Your task to perform on an android device: toggle javascript in the chrome app Image 0: 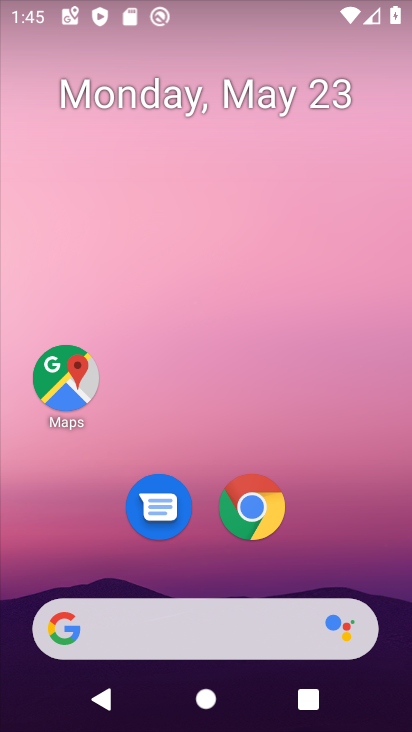
Step 0: click (248, 503)
Your task to perform on an android device: toggle javascript in the chrome app Image 1: 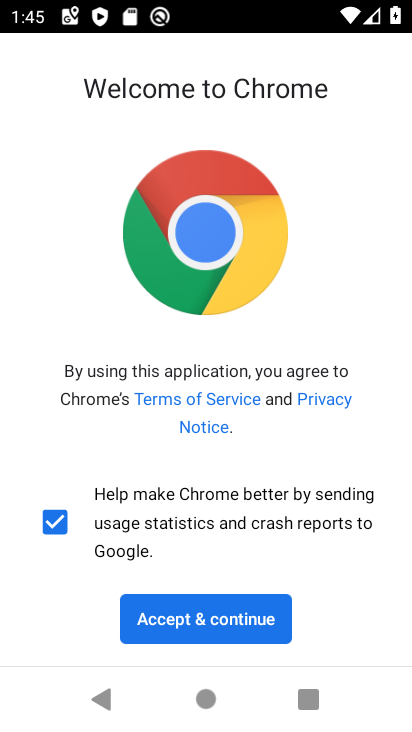
Step 1: click (193, 619)
Your task to perform on an android device: toggle javascript in the chrome app Image 2: 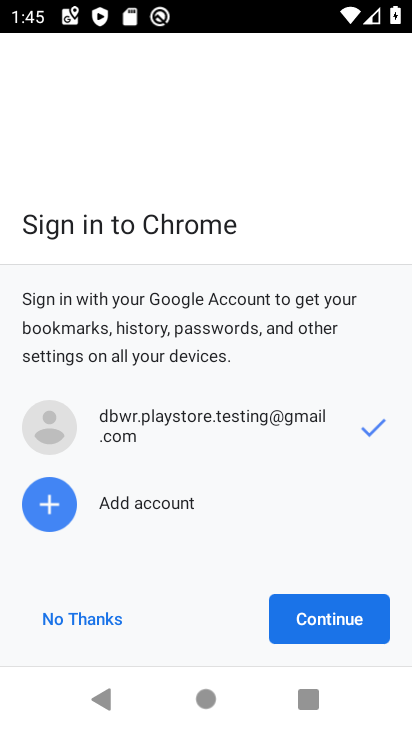
Step 2: click (333, 606)
Your task to perform on an android device: toggle javascript in the chrome app Image 3: 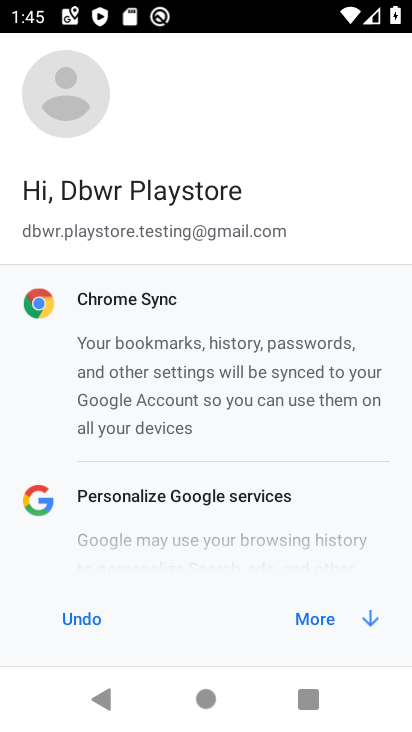
Step 3: click (311, 609)
Your task to perform on an android device: toggle javascript in the chrome app Image 4: 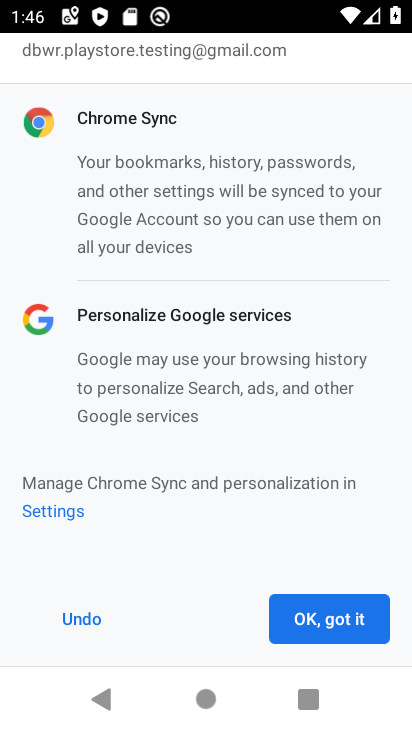
Step 4: click (318, 619)
Your task to perform on an android device: toggle javascript in the chrome app Image 5: 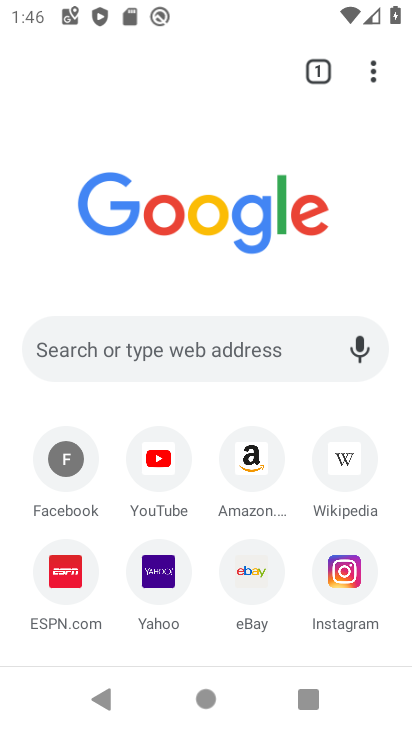
Step 5: click (375, 77)
Your task to perform on an android device: toggle javascript in the chrome app Image 6: 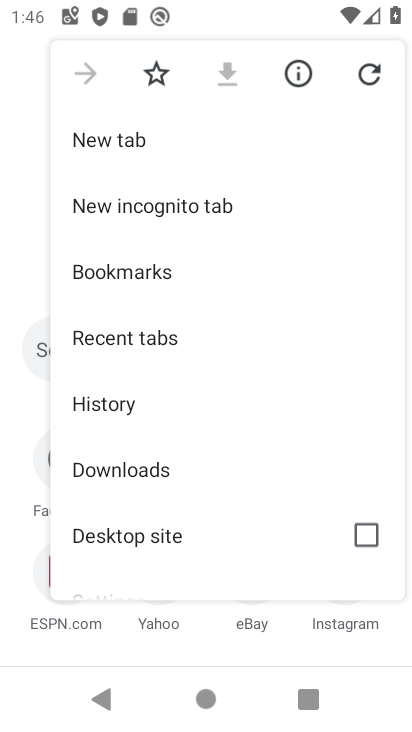
Step 6: drag from (140, 548) to (159, 227)
Your task to perform on an android device: toggle javascript in the chrome app Image 7: 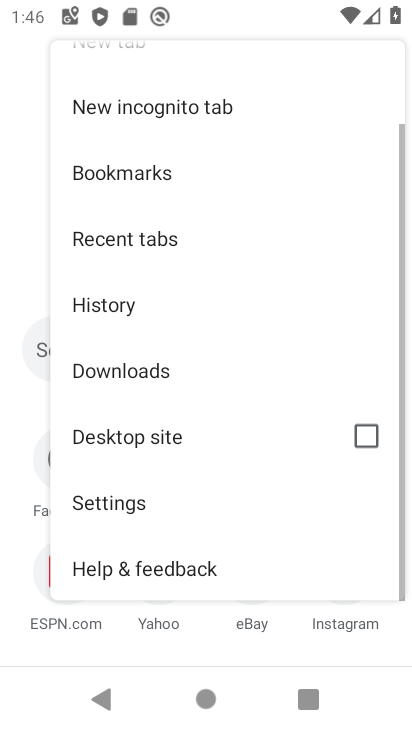
Step 7: click (139, 499)
Your task to perform on an android device: toggle javascript in the chrome app Image 8: 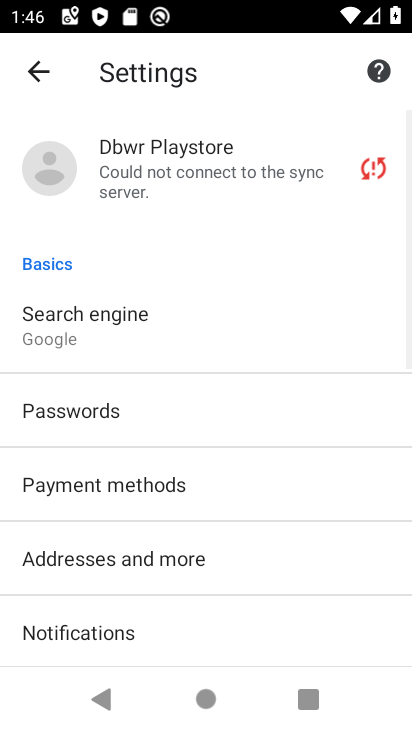
Step 8: drag from (113, 621) to (128, 244)
Your task to perform on an android device: toggle javascript in the chrome app Image 9: 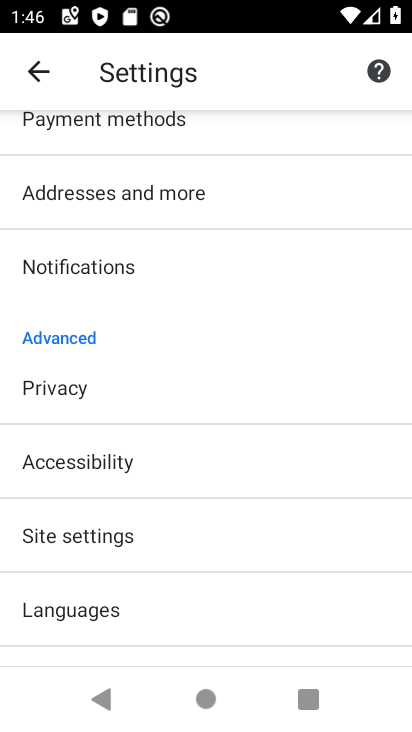
Step 9: click (86, 532)
Your task to perform on an android device: toggle javascript in the chrome app Image 10: 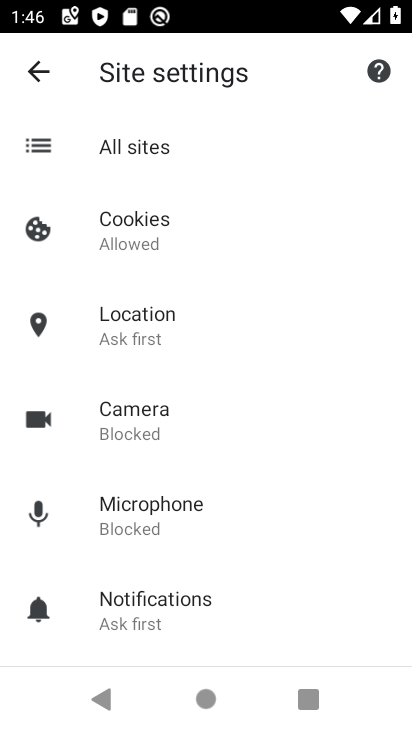
Step 10: drag from (205, 612) to (213, 267)
Your task to perform on an android device: toggle javascript in the chrome app Image 11: 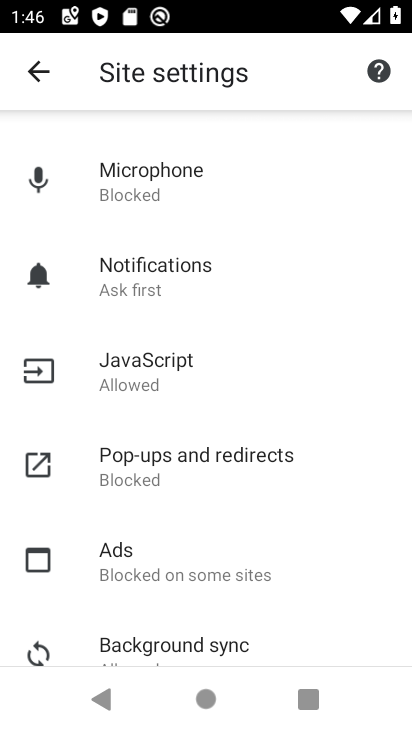
Step 11: click (143, 368)
Your task to perform on an android device: toggle javascript in the chrome app Image 12: 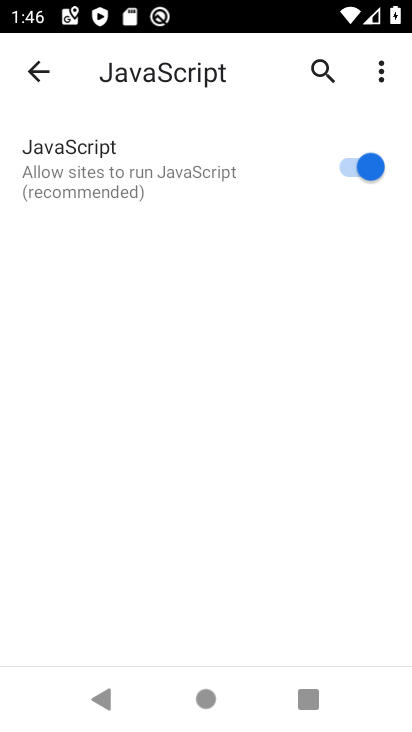
Step 12: click (353, 169)
Your task to perform on an android device: toggle javascript in the chrome app Image 13: 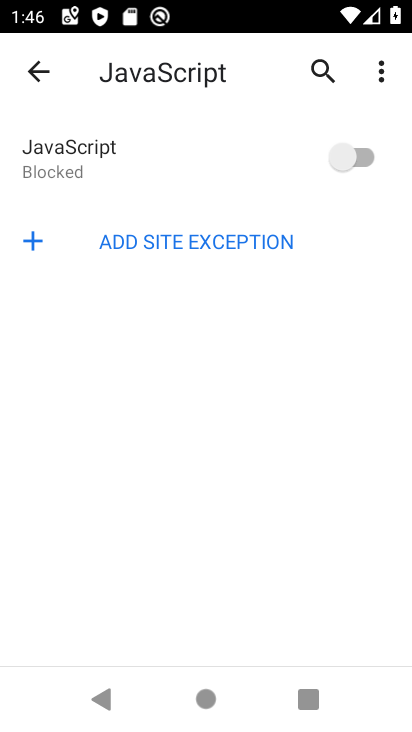
Step 13: task complete